Your task to perform on an android device: Open Amazon Image 0: 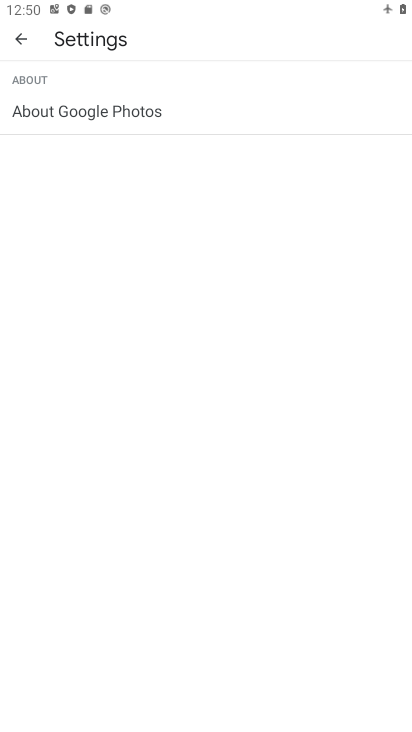
Step 0: press home button
Your task to perform on an android device: Open Amazon Image 1: 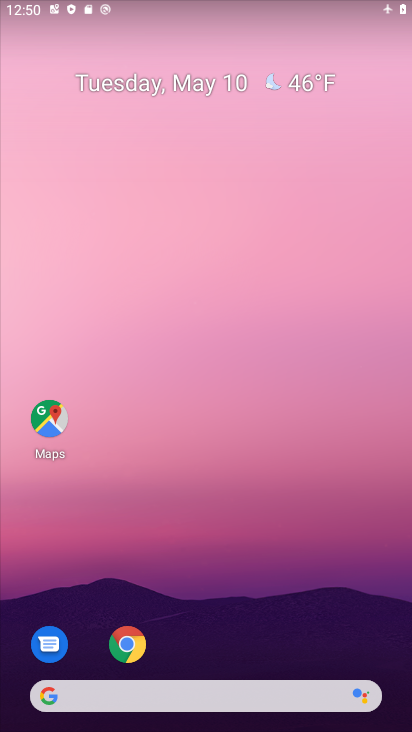
Step 1: drag from (188, 656) to (228, 227)
Your task to perform on an android device: Open Amazon Image 2: 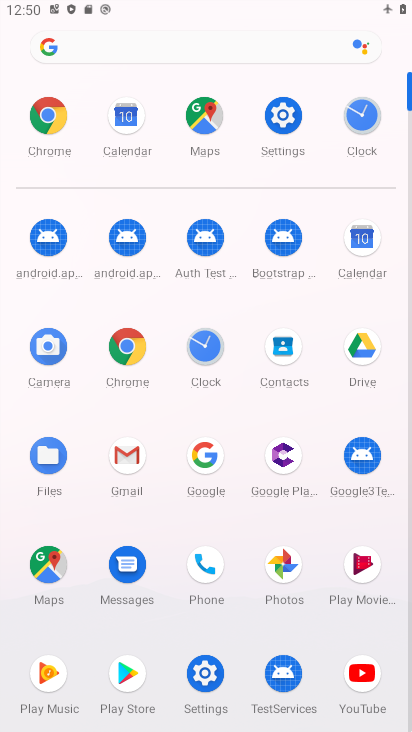
Step 2: click (150, 361)
Your task to perform on an android device: Open Amazon Image 3: 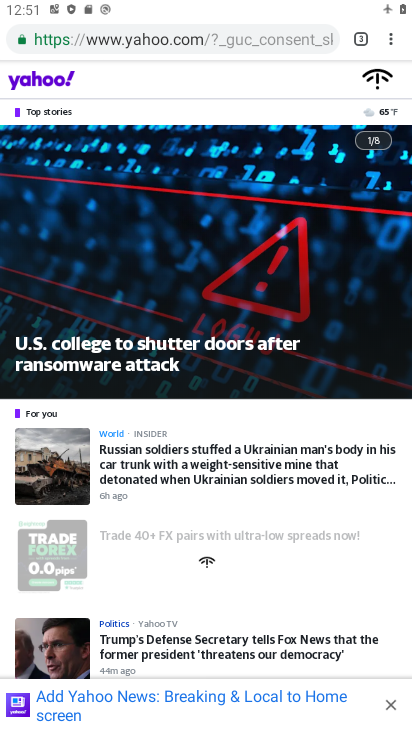
Step 3: click (366, 48)
Your task to perform on an android device: Open Amazon Image 4: 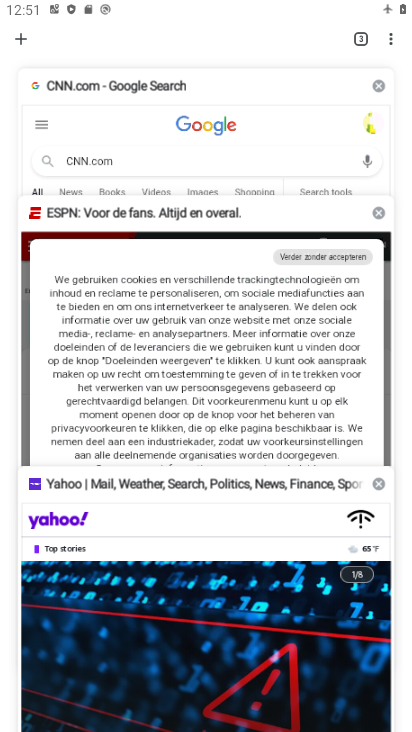
Step 4: click (28, 40)
Your task to perform on an android device: Open Amazon Image 5: 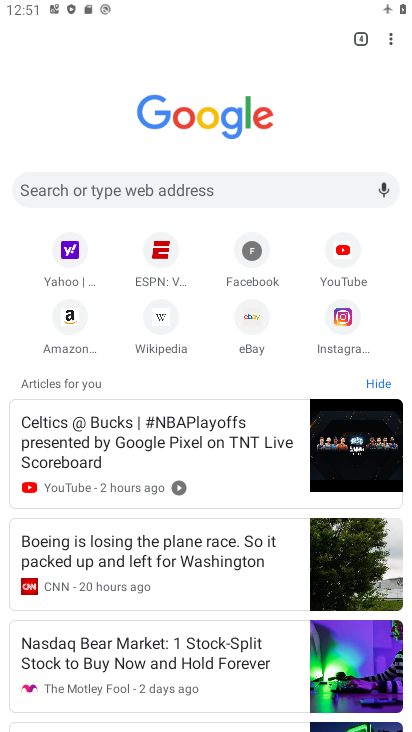
Step 5: click (80, 340)
Your task to perform on an android device: Open Amazon Image 6: 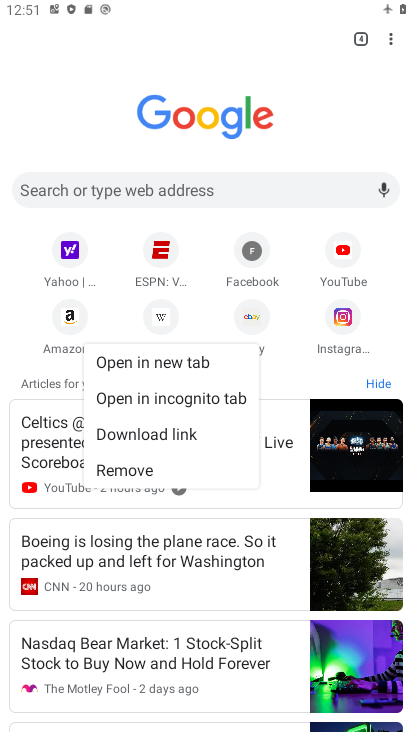
Step 6: click (76, 323)
Your task to perform on an android device: Open Amazon Image 7: 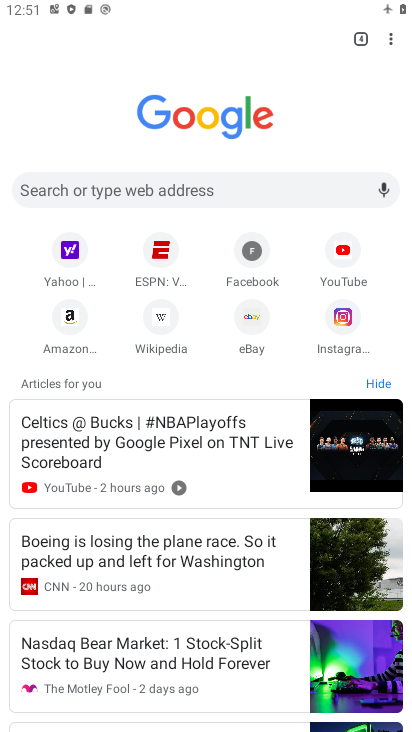
Step 7: click (72, 328)
Your task to perform on an android device: Open Amazon Image 8: 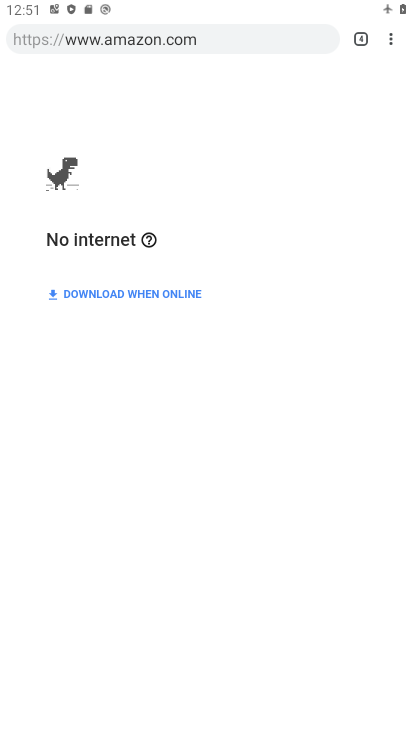
Step 8: task complete